Your task to perform on an android device: check storage Image 0: 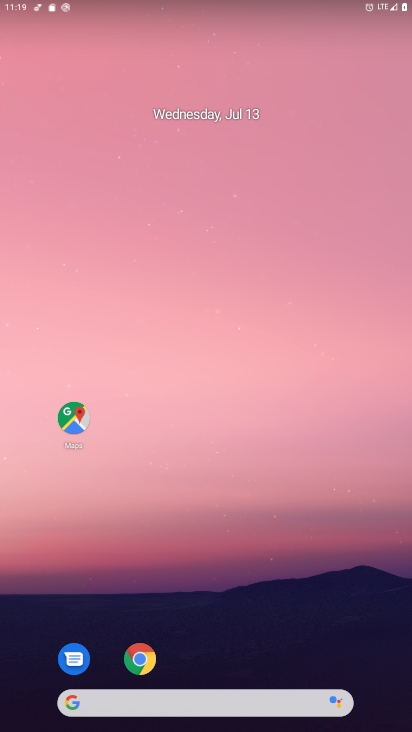
Step 0: drag from (224, 658) to (211, 77)
Your task to perform on an android device: check storage Image 1: 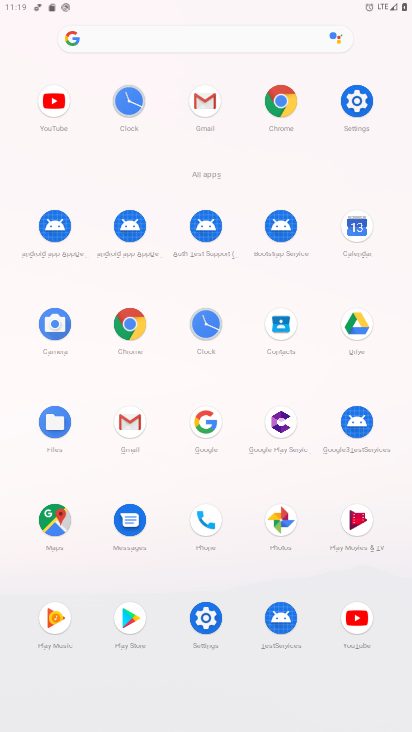
Step 1: click (351, 96)
Your task to perform on an android device: check storage Image 2: 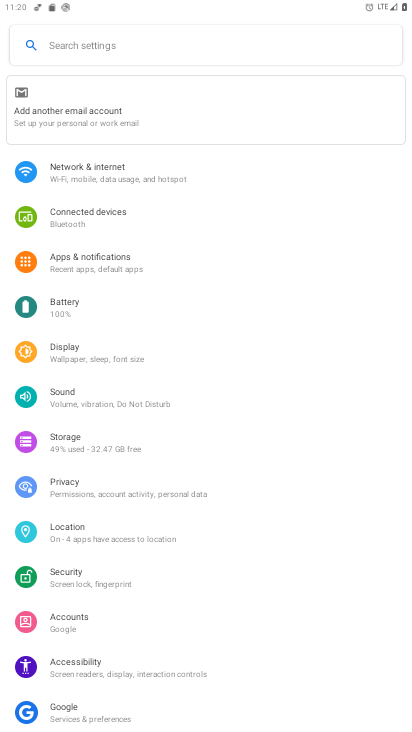
Step 2: click (85, 434)
Your task to perform on an android device: check storage Image 3: 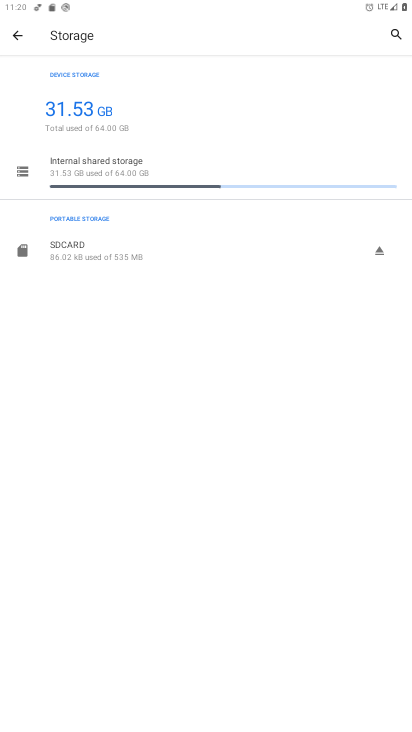
Step 3: task complete